Your task to perform on an android device: Open maps Image 0: 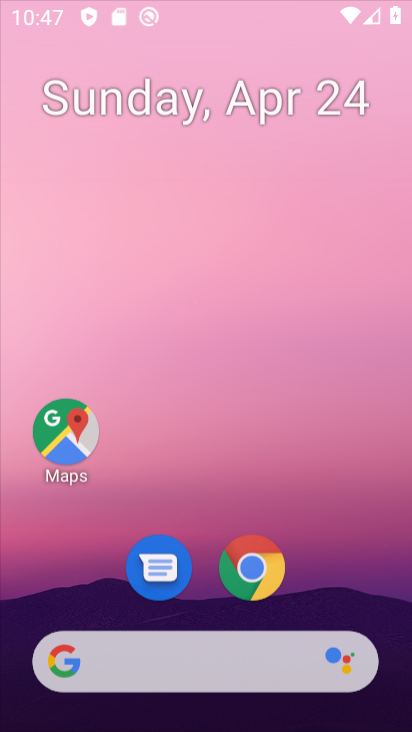
Step 0: drag from (299, 110) to (294, 43)
Your task to perform on an android device: Open maps Image 1: 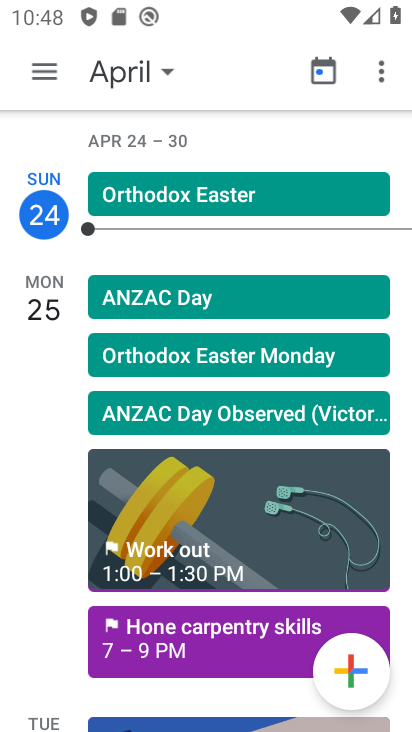
Step 1: press home button
Your task to perform on an android device: Open maps Image 2: 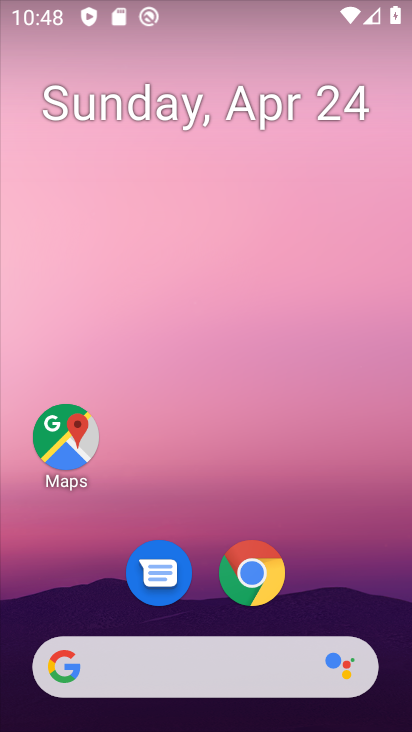
Step 2: drag from (341, 535) to (357, 50)
Your task to perform on an android device: Open maps Image 3: 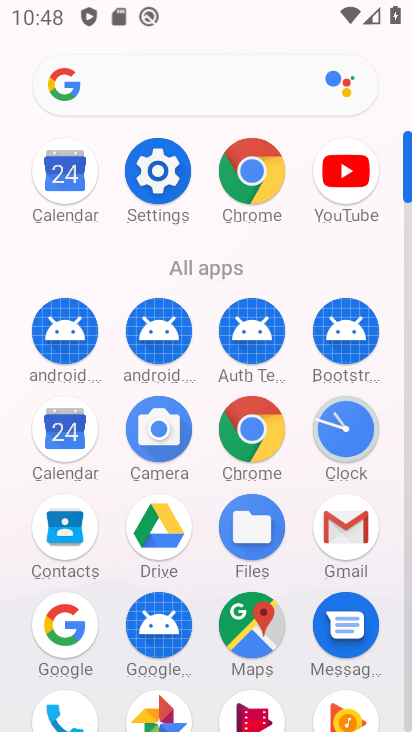
Step 3: click (255, 616)
Your task to perform on an android device: Open maps Image 4: 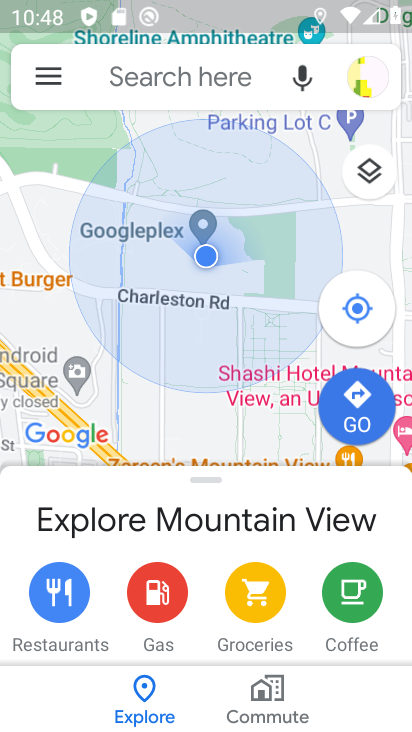
Step 4: task complete